Your task to perform on an android device: Show me productivity apps on the Play Store Image 0: 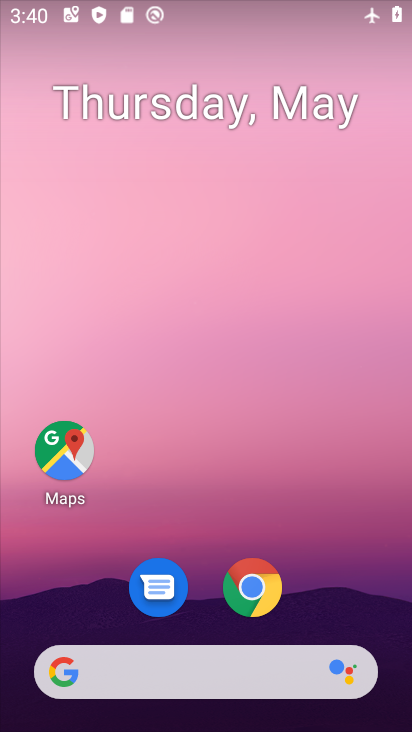
Step 0: drag from (215, 526) to (234, 159)
Your task to perform on an android device: Show me productivity apps on the Play Store Image 1: 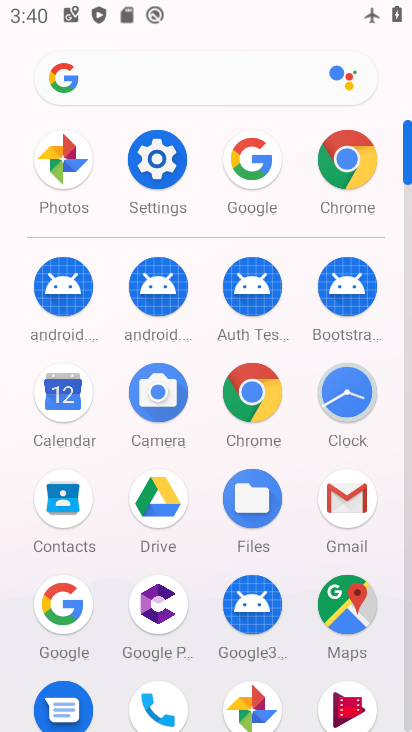
Step 1: drag from (237, 481) to (284, 145)
Your task to perform on an android device: Show me productivity apps on the Play Store Image 2: 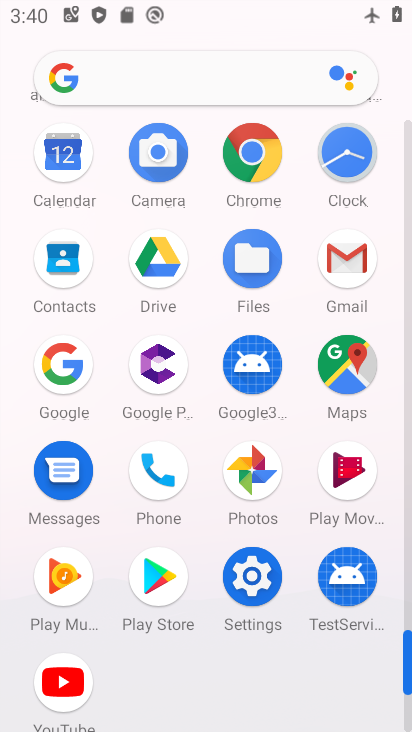
Step 2: click (164, 579)
Your task to perform on an android device: Show me productivity apps on the Play Store Image 3: 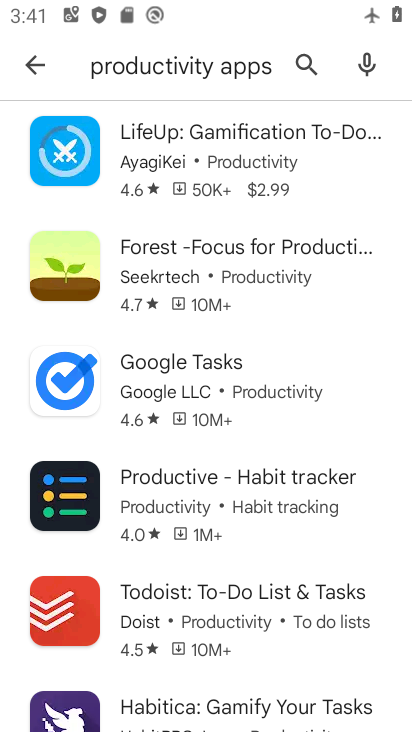
Step 3: task complete